Your task to perform on an android device: create a new album in the google photos Image 0: 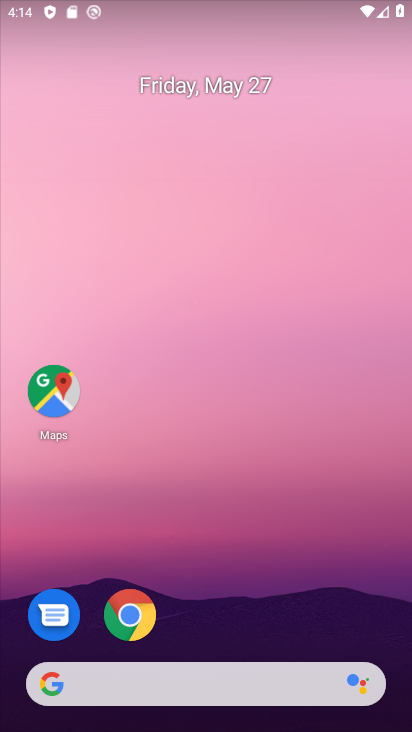
Step 0: drag from (291, 580) to (251, 8)
Your task to perform on an android device: create a new album in the google photos Image 1: 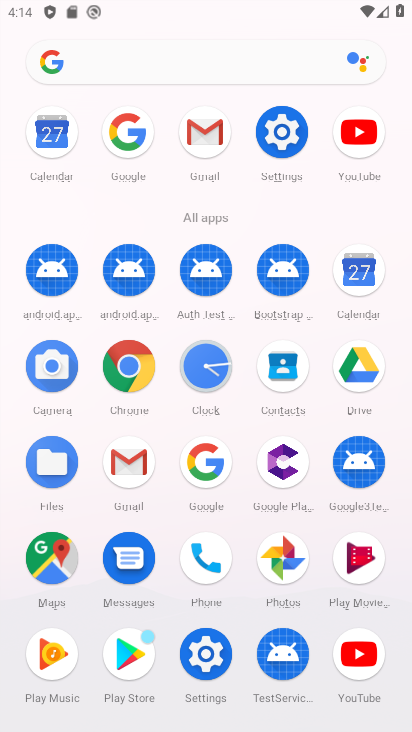
Step 1: click (279, 552)
Your task to perform on an android device: create a new album in the google photos Image 2: 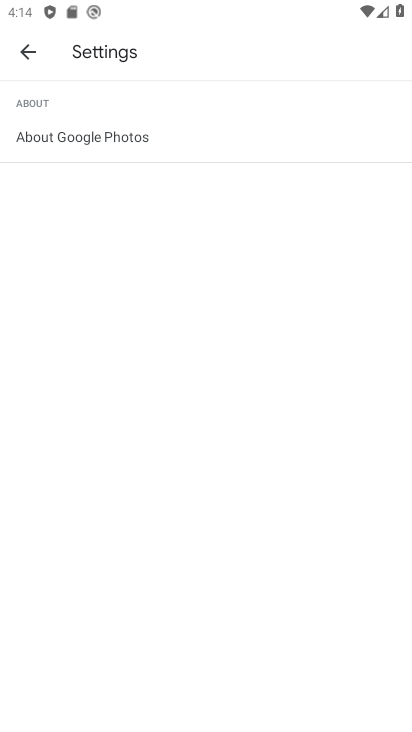
Step 2: click (32, 48)
Your task to perform on an android device: create a new album in the google photos Image 3: 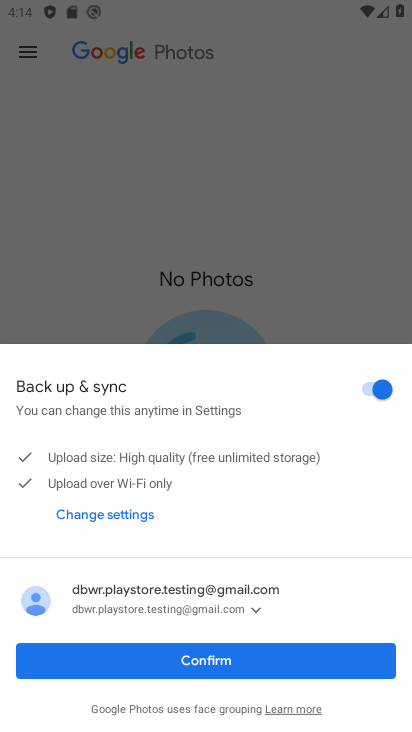
Step 3: click (264, 661)
Your task to perform on an android device: create a new album in the google photos Image 4: 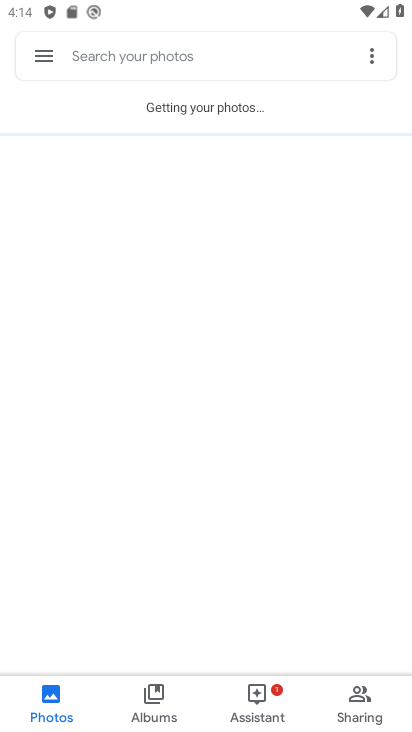
Step 4: click (142, 693)
Your task to perform on an android device: create a new album in the google photos Image 5: 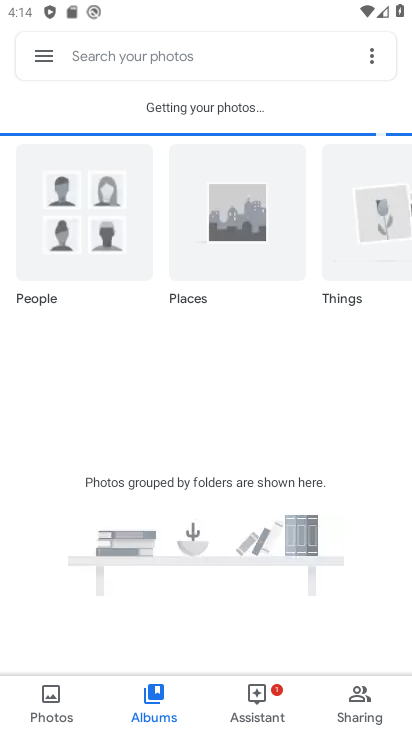
Step 5: drag from (129, 460) to (206, 151)
Your task to perform on an android device: create a new album in the google photos Image 6: 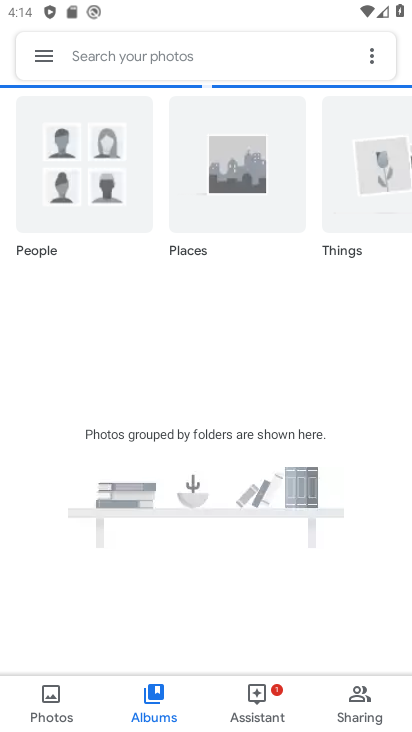
Step 6: click (372, 54)
Your task to perform on an android device: create a new album in the google photos Image 7: 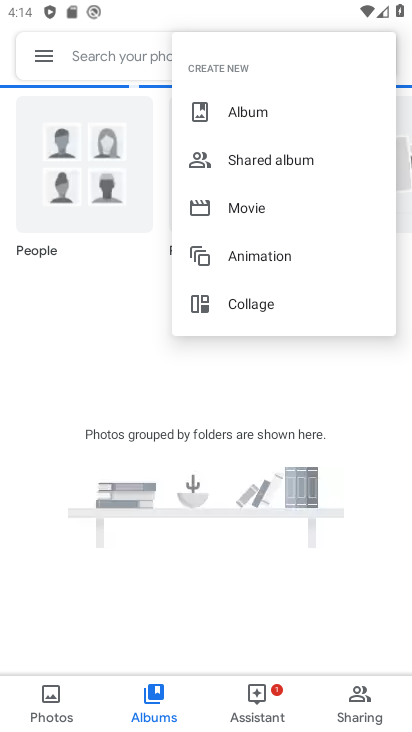
Step 7: click (280, 122)
Your task to perform on an android device: create a new album in the google photos Image 8: 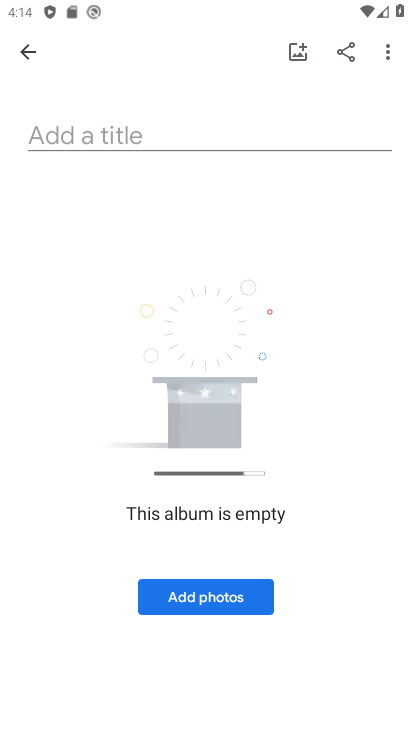
Step 8: click (157, 117)
Your task to perform on an android device: create a new album in the google photos Image 9: 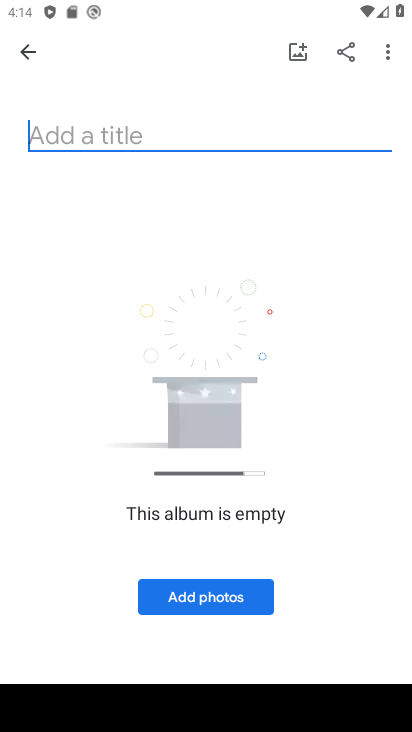
Step 9: type "dfgsdf"
Your task to perform on an android device: create a new album in the google photos Image 10: 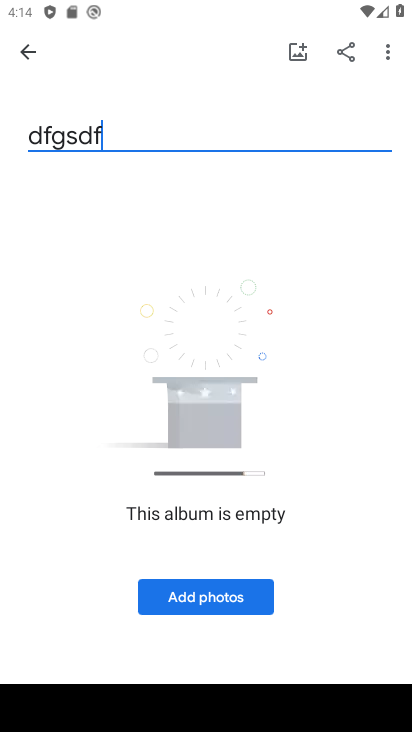
Step 10: type ""
Your task to perform on an android device: create a new album in the google photos Image 11: 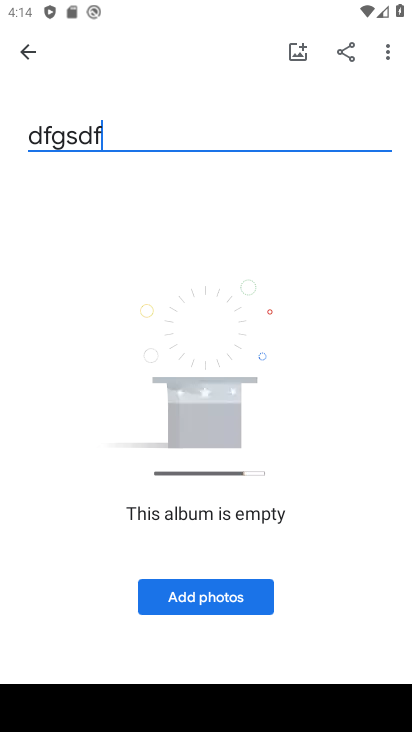
Step 11: click (255, 599)
Your task to perform on an android device: create a new album in the google photos Image 12: 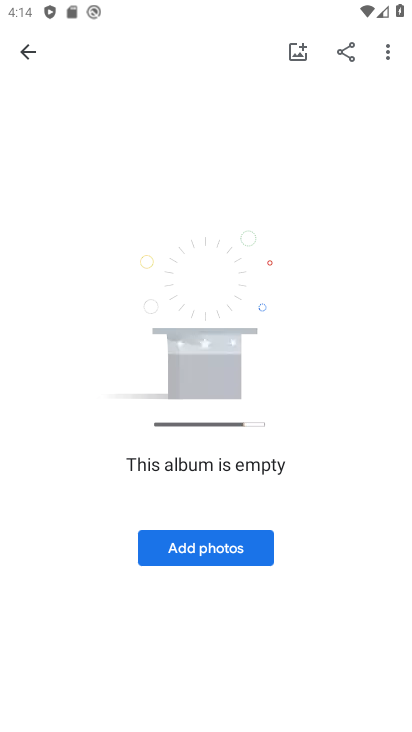
Step 12: click (234, 544)
Your task to perform on an android device: create a new album in the google photos Image 13: 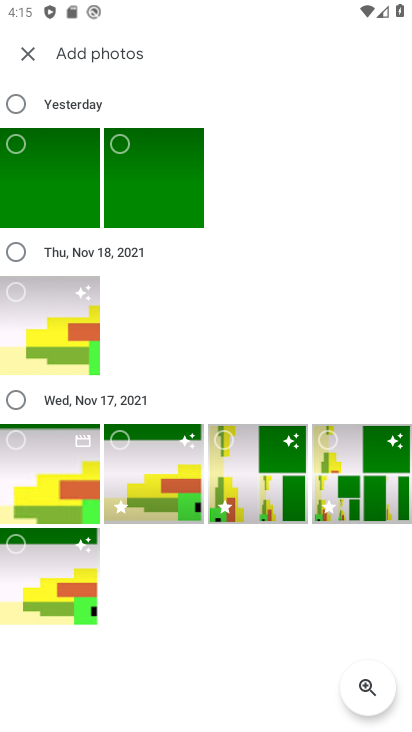
Step 13: click (47, 200)
Your task to perform on an android device: create a new album in the google photos Image 14: 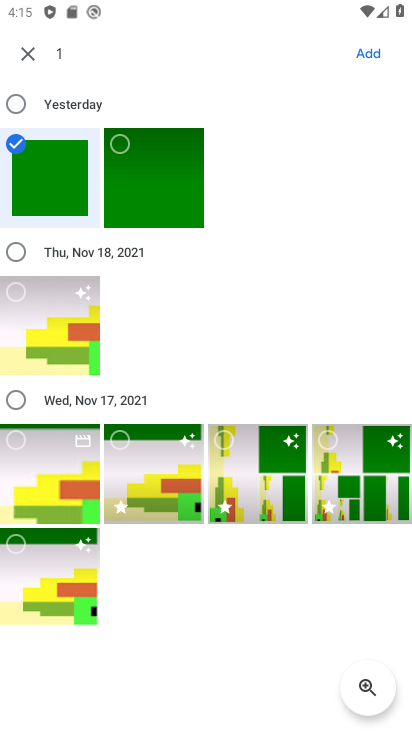
Step 14: click (161, 460)
Your task to perform on an android device: create a new album in the google photos Image 15: 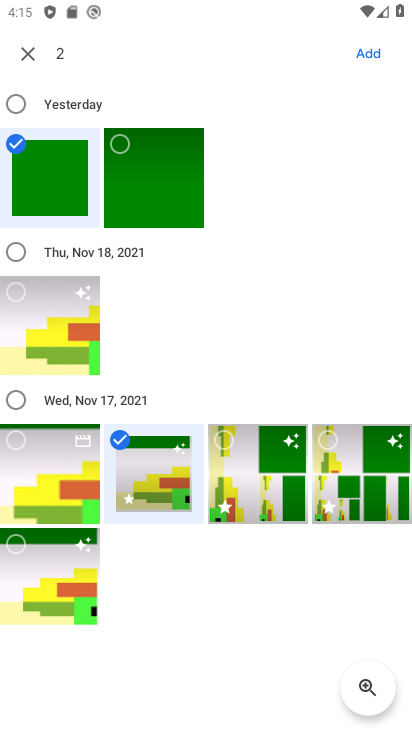
Step 15: click (369, 51)
Your task to perform on an android device: create a new album in the google photos Image 16: 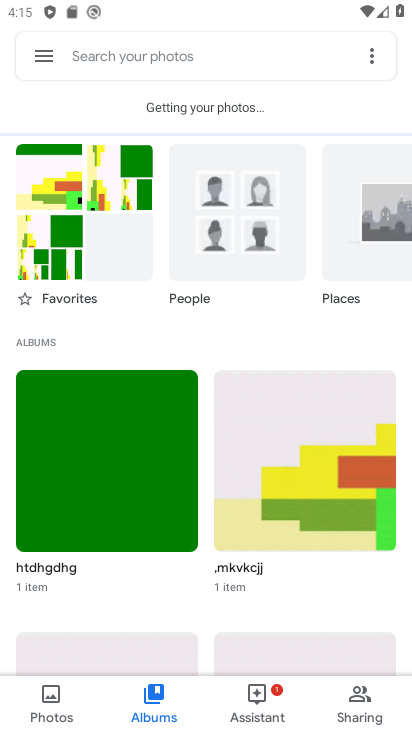
Step 16: task complete